Your task to perform on an android device: turn on sleep mode Image 0: 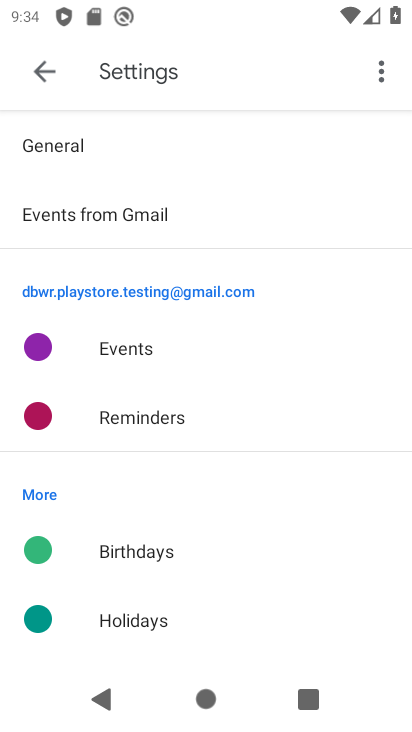
Step 0: press home button
Your task to perform on an android device: turn on sleep mode Image 1: 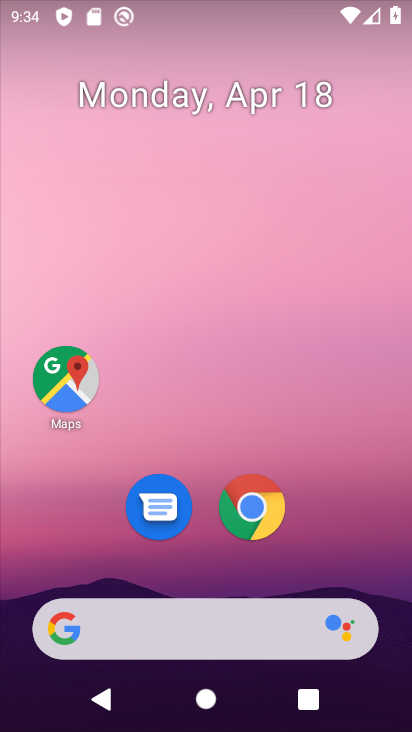
Step 1: drag from (211, 570) to (220, 0)
Your task to perform on an android device: turn on sleep mode Image 2: 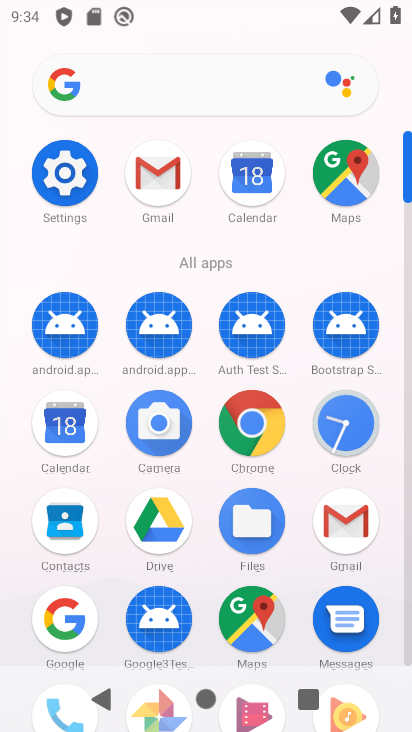
Step 2: click (76, 174)
Your task to perform on an android device: turn on sleep mode Image 3: 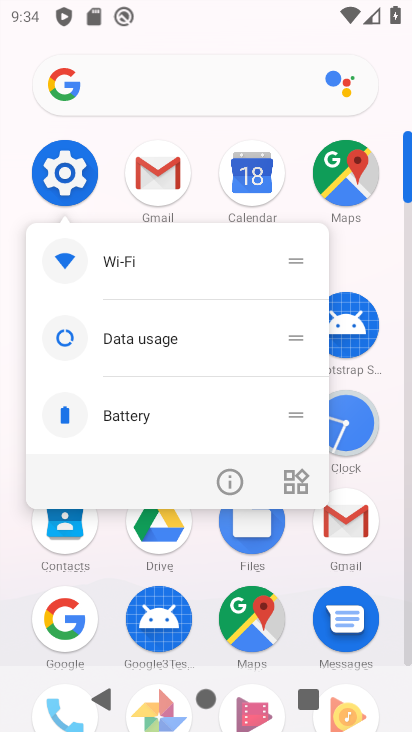
Step 3: click (68, 167)
Your task to perform on an android device: turn on sleep mode Image 4: 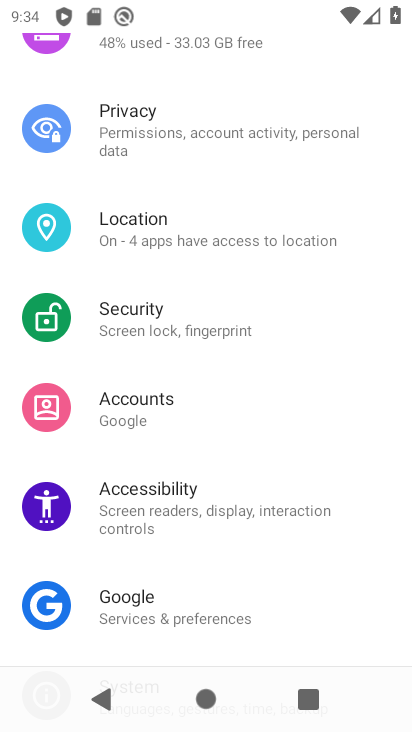
Step 4: drag from (135, 154) to (130, 516)
Your task to perform on an android device: turn on sleep mode Image 5: 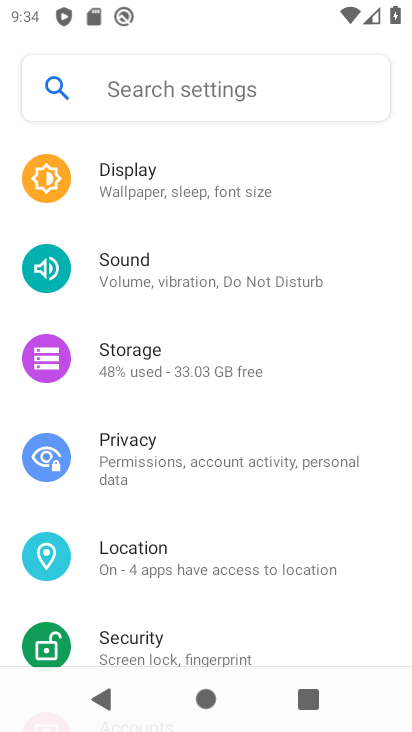
Step 5: click (133, 193)
Your task to perform on an android device: turn on sleep mode Image 6: 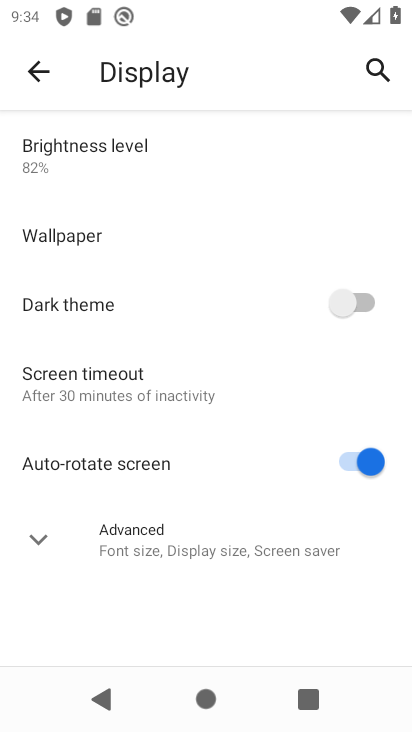
Step 6: task complete